Your task to perform on an android device: Go to Android settings Image 0: 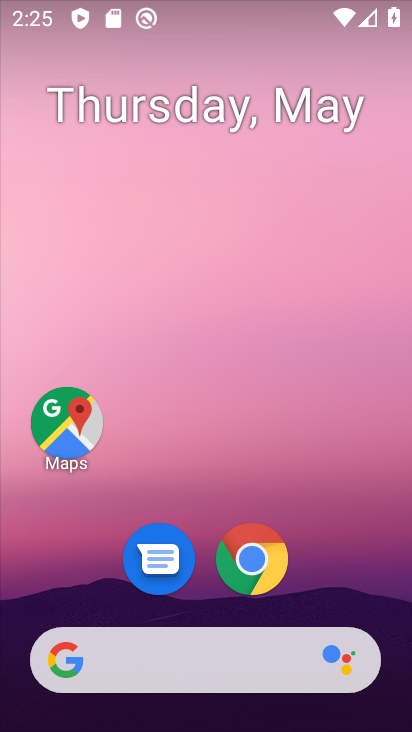
Step 0: drag from (194, 615) to (214, 285)
Your task to perform on an android device: Go to Android settings Image 1: 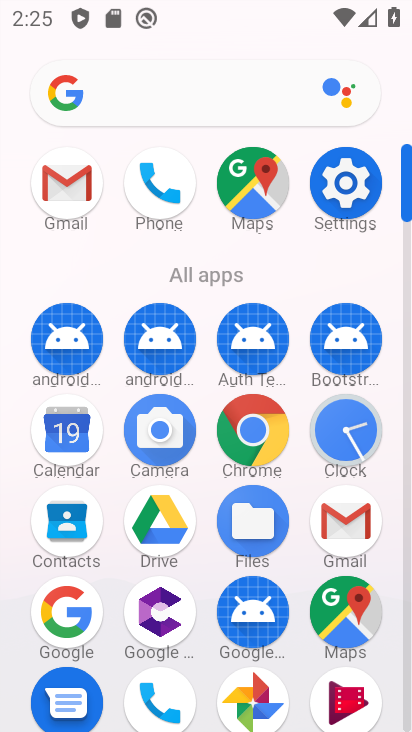
Step 1: click (340, 190)
Your task to perform on an android device: Go to Android settings Image 2: 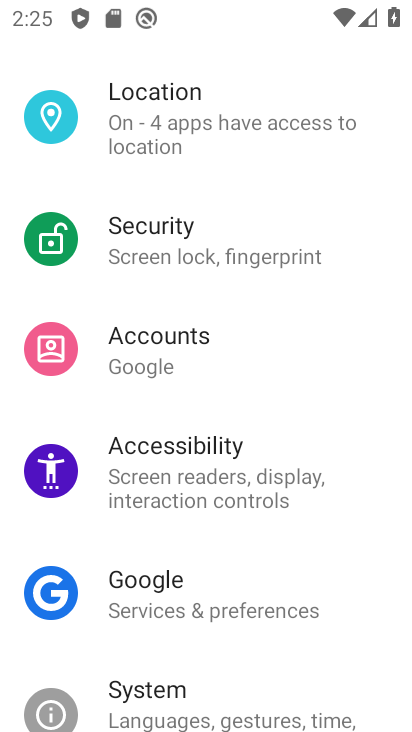
Step 2: task complete